Your task to perform on an android device: Go to settings Image 0: 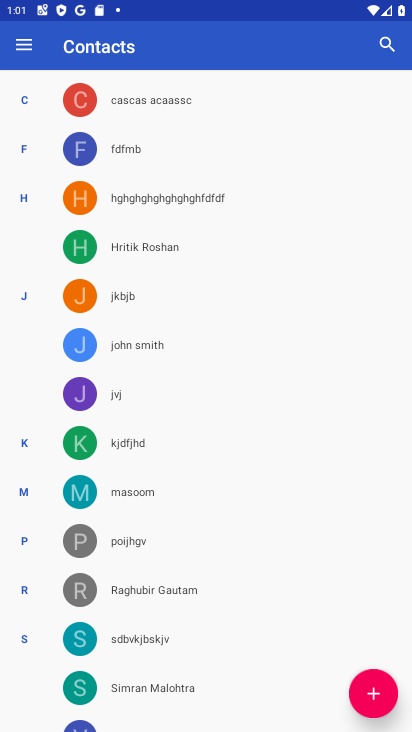
Step 0: press home button
Your task to perform on an android device: Go to settings Image 1: 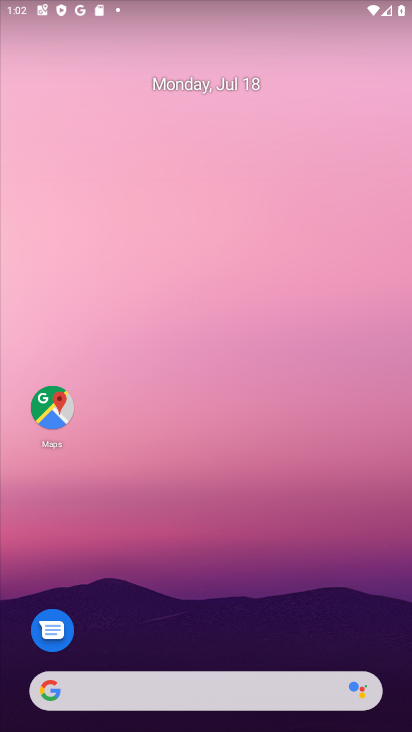
Step 1: drag from (126, 691) to (131, 23)
Your task to perform on an android device: Go to settings Image 2: 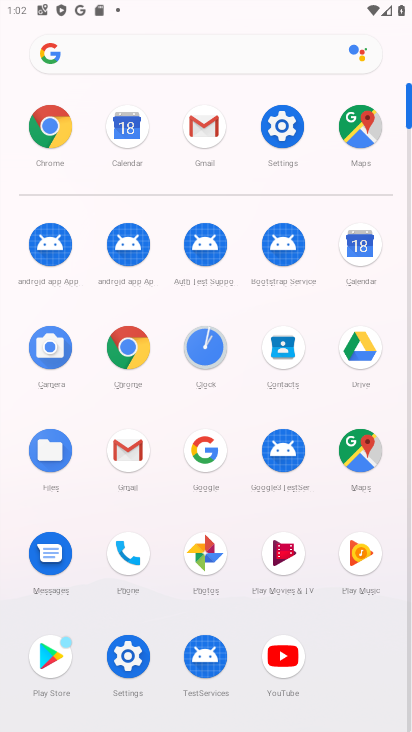
Step 2: click (279, 137)
Your task to perform on an android device: Go to settings Image 3: 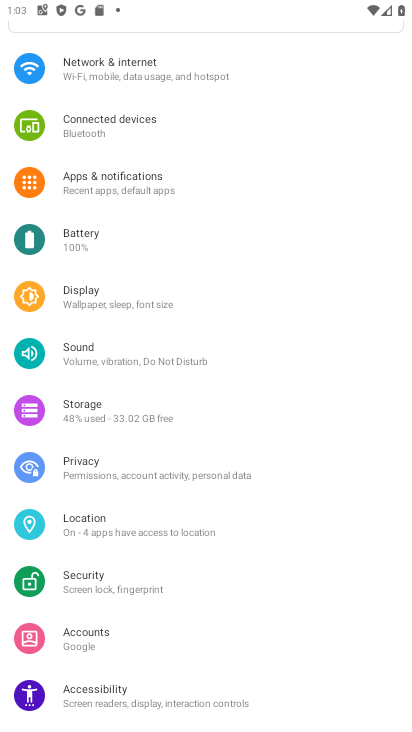
Step 3: task complete